Your task to perform on an android device: Turn on the flashlight Image 0: 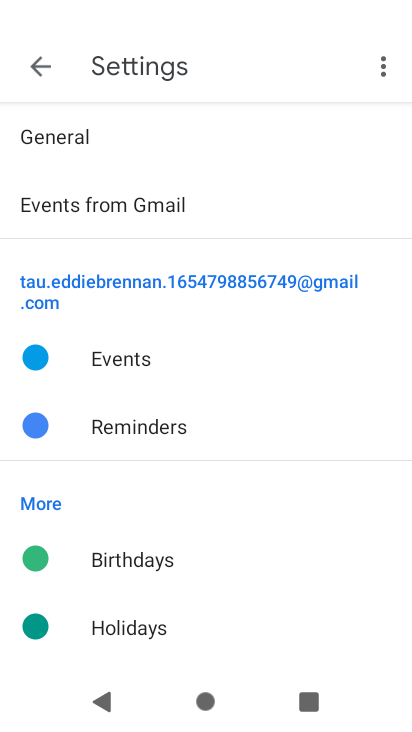
Step 0: press home button
Your task to perform on an android device: Turn on the flashlight Image 1: 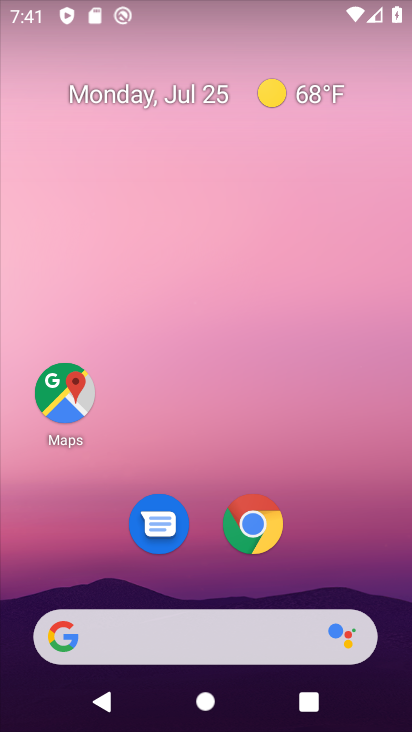
Step 1: drag from (322, 542) to (324, 23)
Your task to perform on an android device: Turn on the flashlight Image 2: 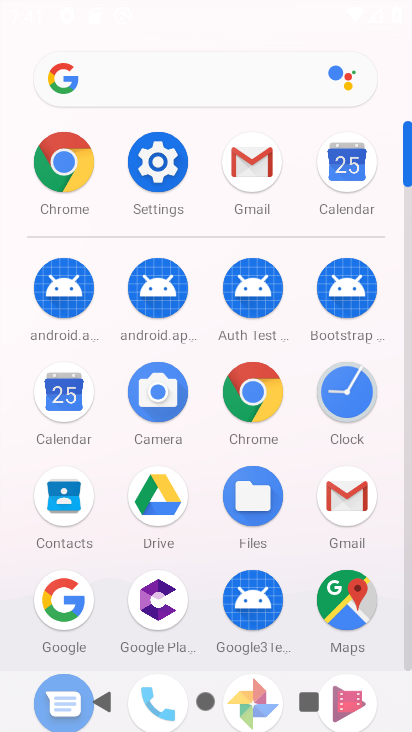
Step 2: click (161, 157)
Your task to perform on an android device: Turn on the flashlight Image 3: 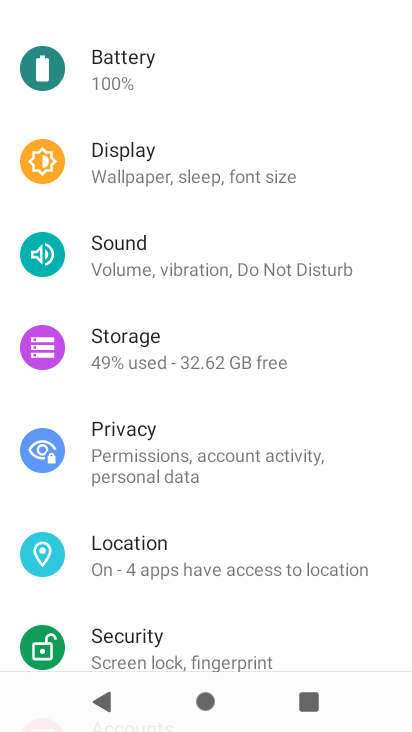
Step 3: drag from (206, 228) to (260, 662)
Your task to perform on an android device: Turn on the flashlight Image 4: 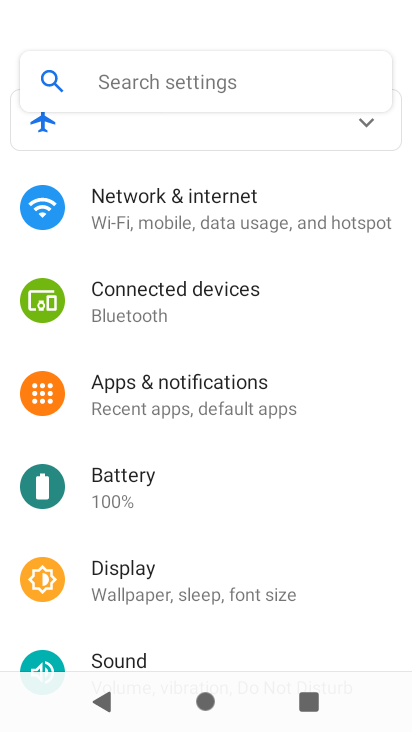
Step 4: drag from (233, 279) to (229, 626)
Your task to perform on an android device: Turn on the flashlight Image 5: 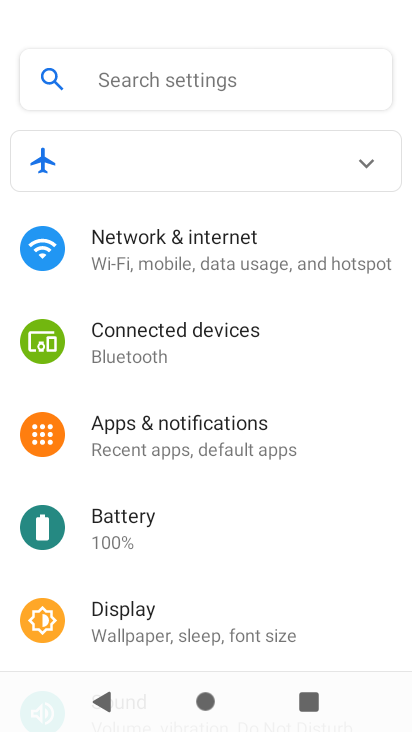
Step 5: click (212, 81)
Your task to perform on an android device: Turn on the flashlight Image 6: 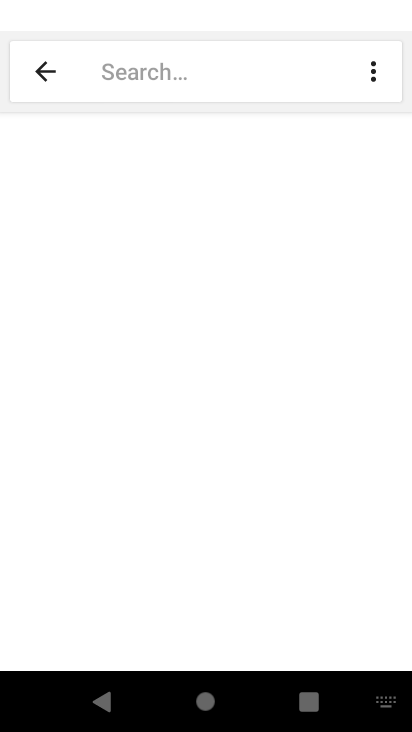
Step 6: type "Flashlight"
Your task to perform on an android device: Turn on the flashlight Image 7: 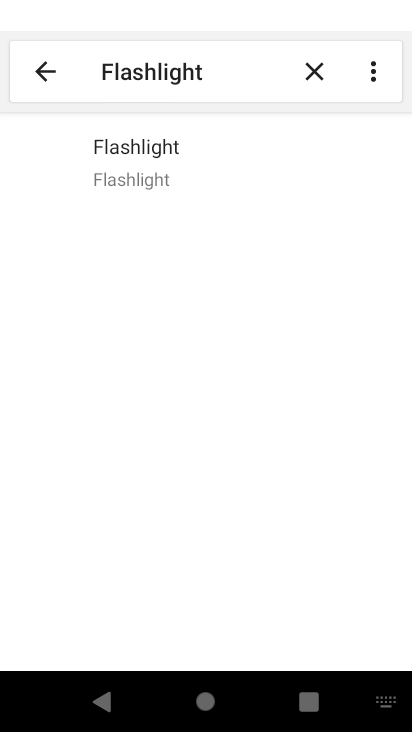
Step 7: click (141, 163)
Your task to perform on an android device: Turn on the flashlight Image 8: 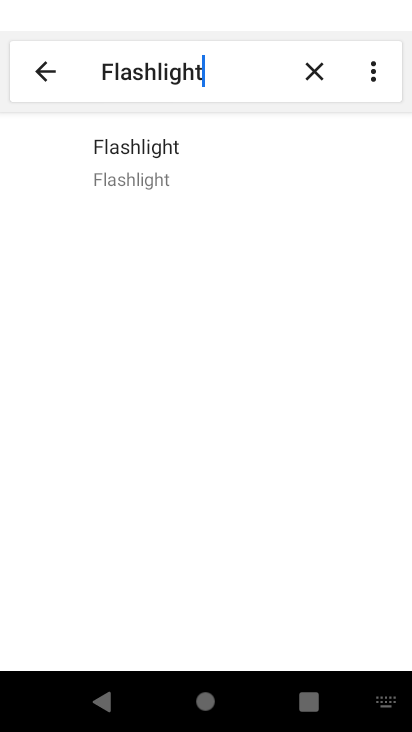
Step 8: task complete